Your task to perform on an android device: empty trash in the gmail app Image 0: 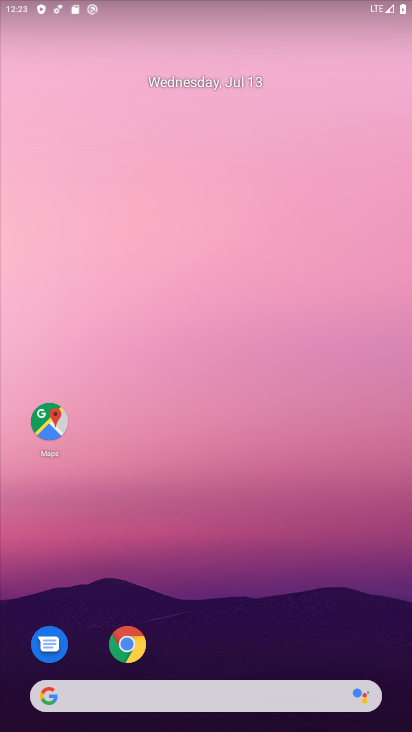
Step 0: drag from (189, 563) to (293, 5)
Your task to perform on an android device: empty trash in the gmail app Image 1: 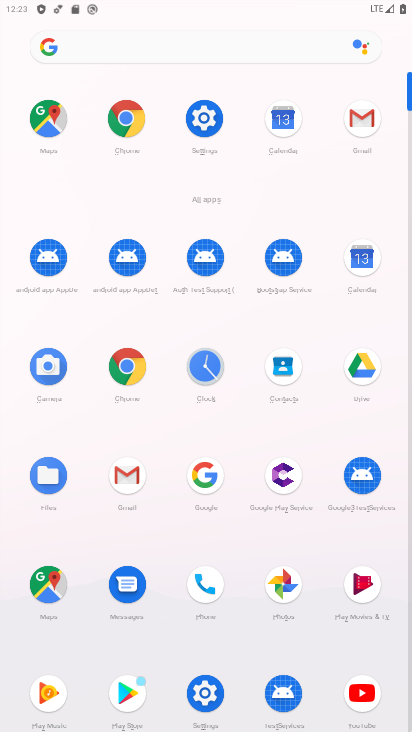
Step 1: click (359, 139)
Your task to perform on an android device: empty trash in the gmail app Image 2: 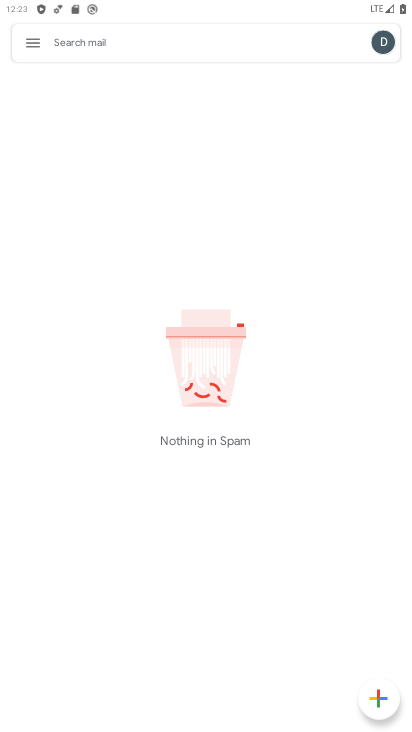
Step 2: click (27, 37)
Your task to perform on an android device: empty trash in the gmail app Image 3: 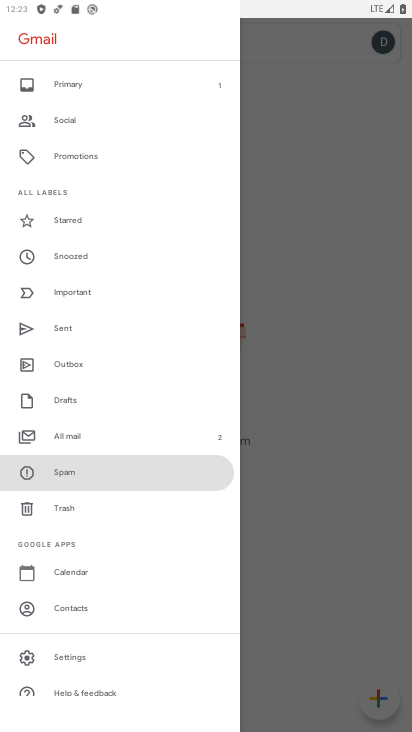
Step 3: click (64, 508)
Your task to perform on an android device: empty trash in the gmail app Image 4: 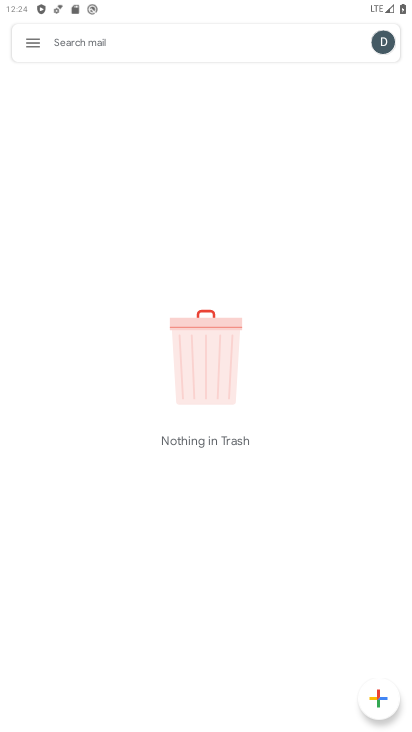
Step 4: task complete